Your task to perform on an android device: toggle sleep mode Image 0: 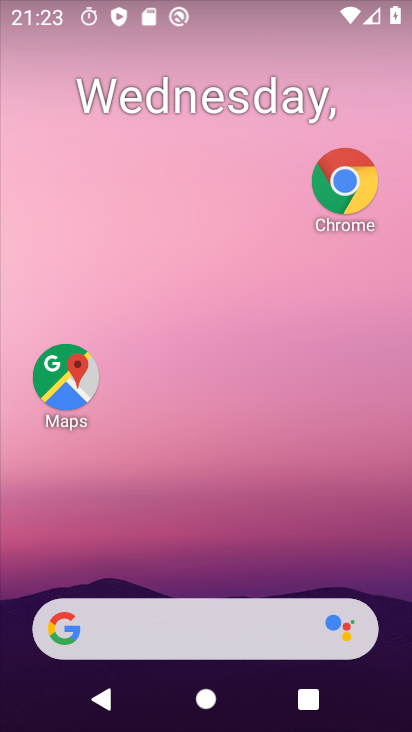
Step 0: drag from (249, 684) to (206, 79)
Your task to perform on an android device: toggle sleep mode Image 1: 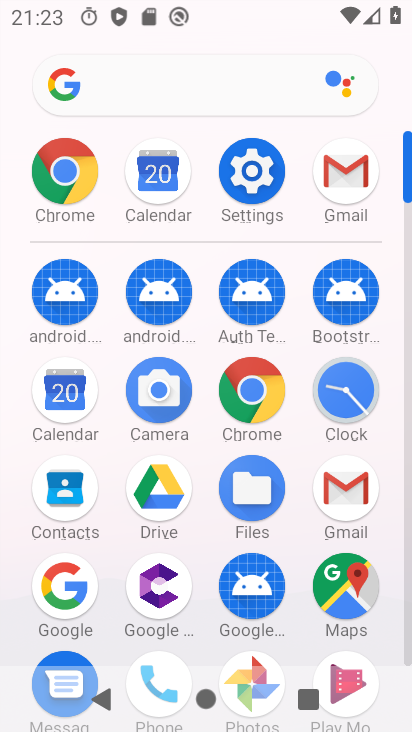
Step 1: click (242, 184)
Your task to perform on an android device: toggle sleep mode Image 2: 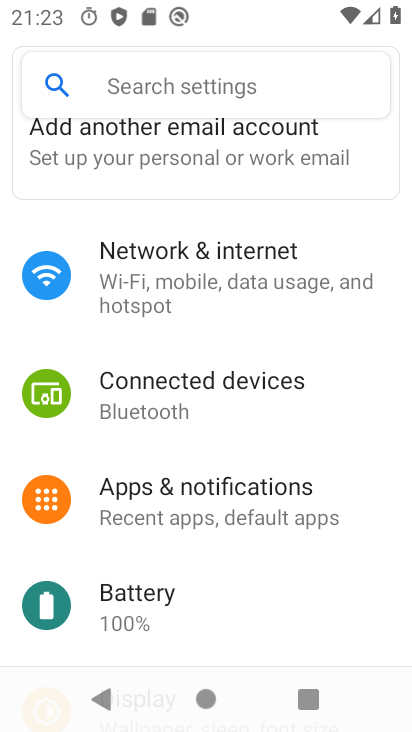
Step 2: click (206, 81)
Your task to perform on an android device: toggle sleep mode Image 3: 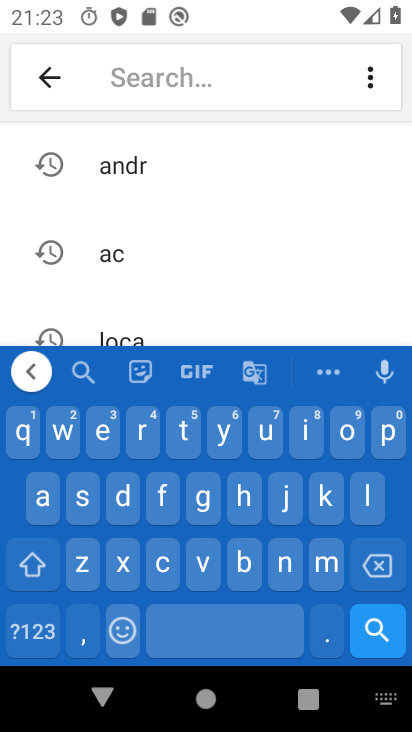
Step 3: click (79, 510)
Your task to perform on an android device: toggle sleep mode Image 4: 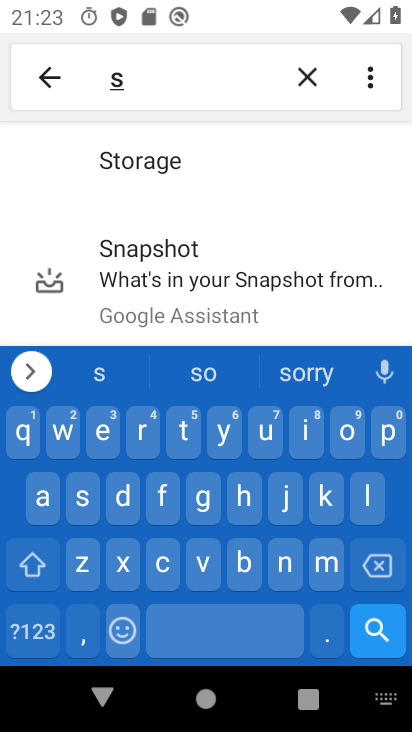
Step 4: click (375, 496)
Your task to perform on an android device: toggle sleep mode Image 5: 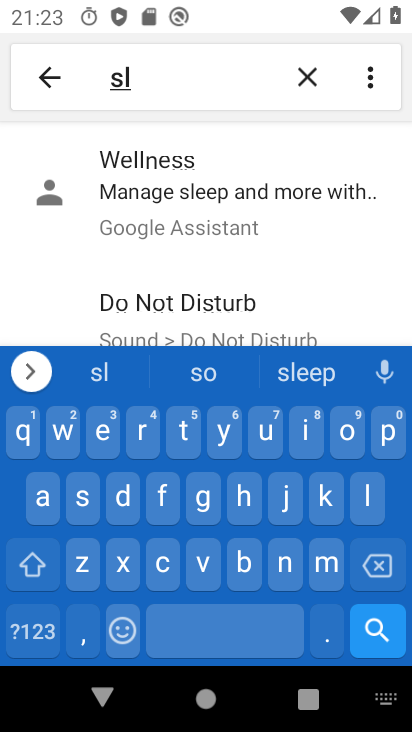
Step 5: click (205, 217)
Your task to perform on an android device: toggle sleep mode Image 6: 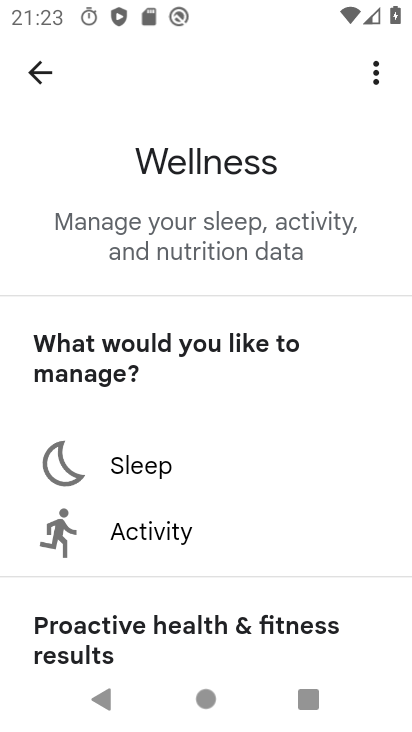
Step 6: click (131, 473)
Your task to perform on an android device: toggle sleep mode Image 7: 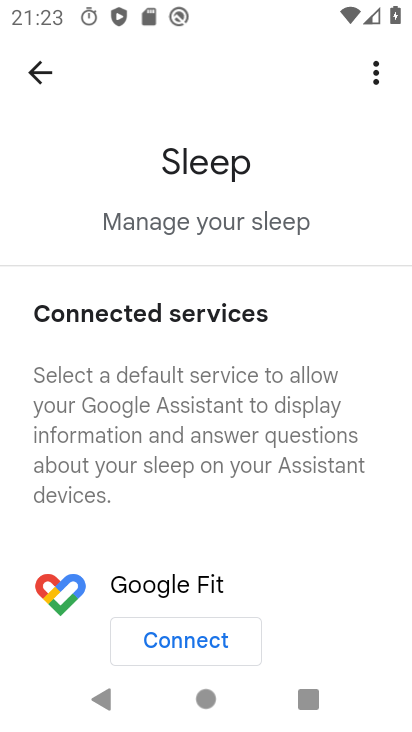
Step 7: task complete